Your task to perform on an android device: Go to calendar. Show me events next week Image 0: 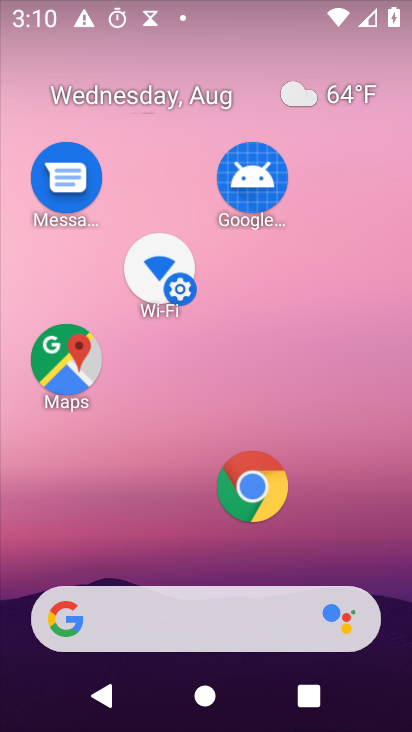
Step 0: drag from (353, 467) to (358, 32)
Your task to perform on an android device: Go to calendar. Show me events next week Image 1: 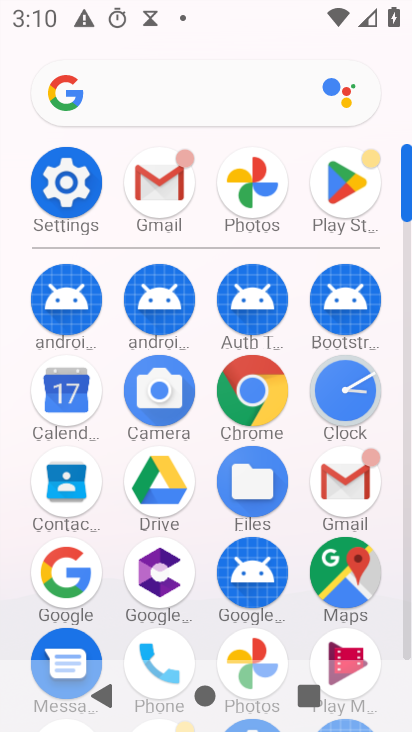
Step 1: click (69, 400)
Your task to perform on an android device: Go to calendar. Show me events next week Image 2: 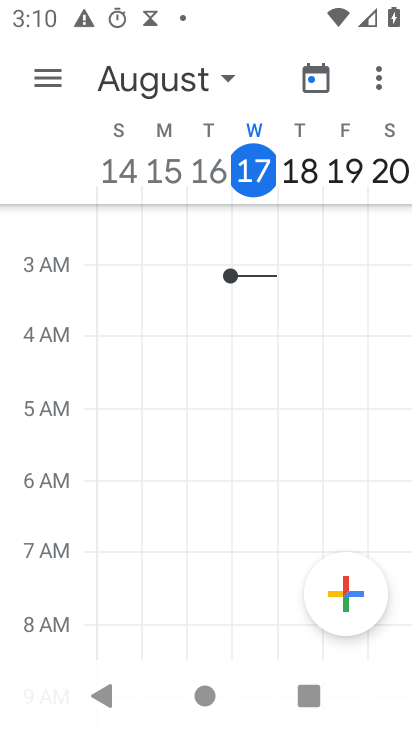
Step 2: click (45, 75)
Your task to perform on an android device: Go to calendar. Show me events next week Image 3: 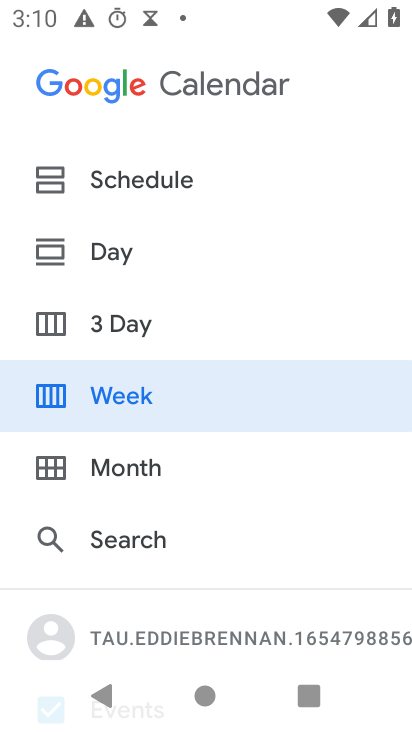
Step 3: click (129, 393)
Your task to perform on an android device: Go to calendar. Show me events next week Image 4: 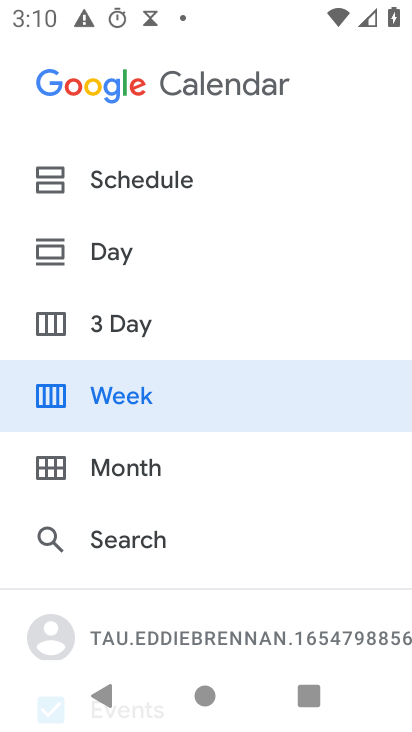
Step 4: task complete